Your task to perform on an android device: toggle location history Image 0: 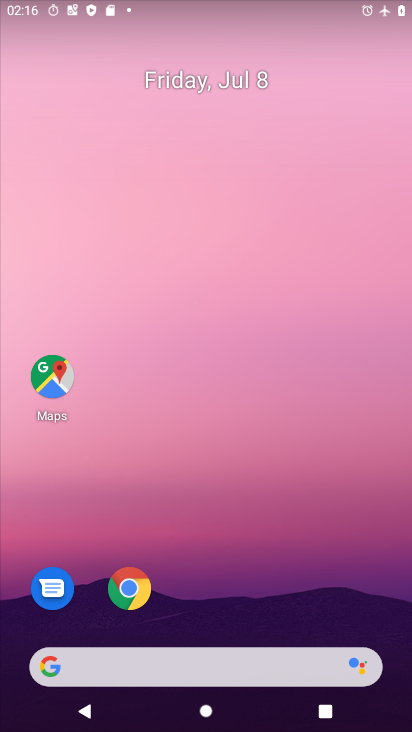
Step 0: drag from (258, 551) to (297, 108)
Your task to perform on an android device: toggle location history Image 1: 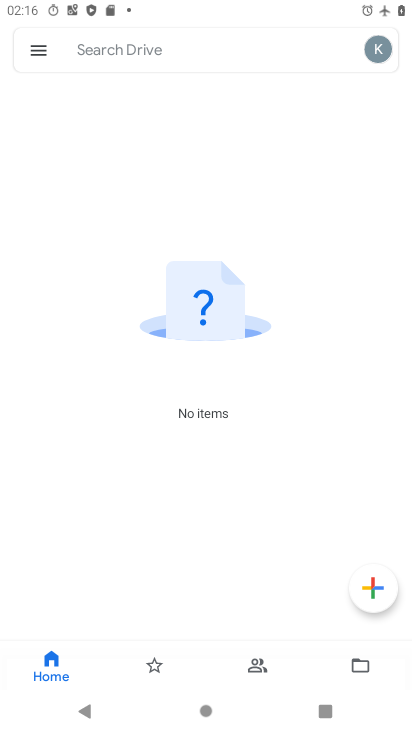
Step 1: press home button
Your task to perform on an android device: toggle location history Image 2: 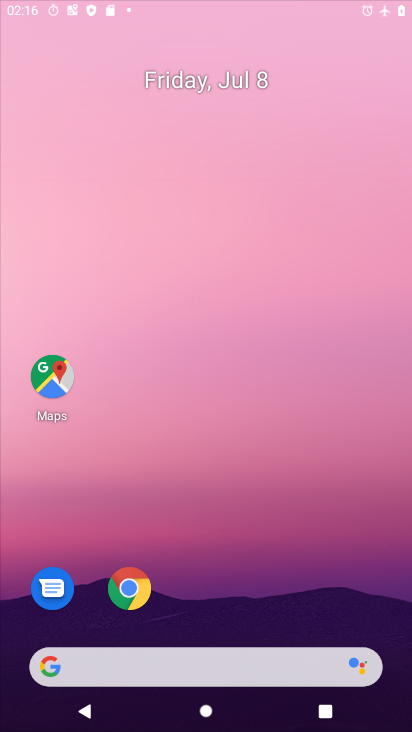
Step 2: drag from (219, 623) to (223, 292)
Your task to perform on an android device: toggle location history Image 3: 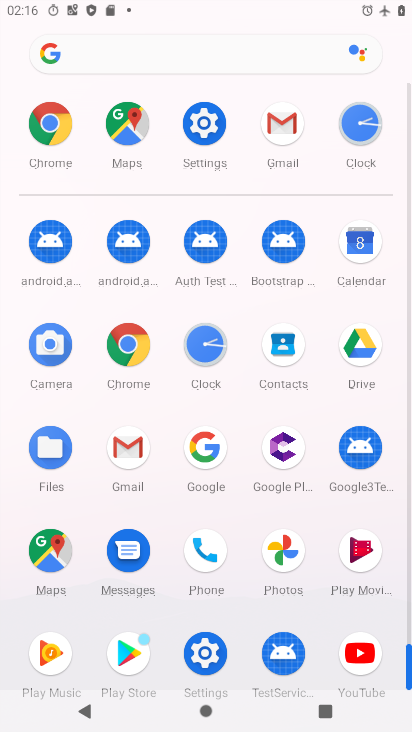
Step 3: click (206, 113)
Your task to perform on an android device: toggle location history Image 4: 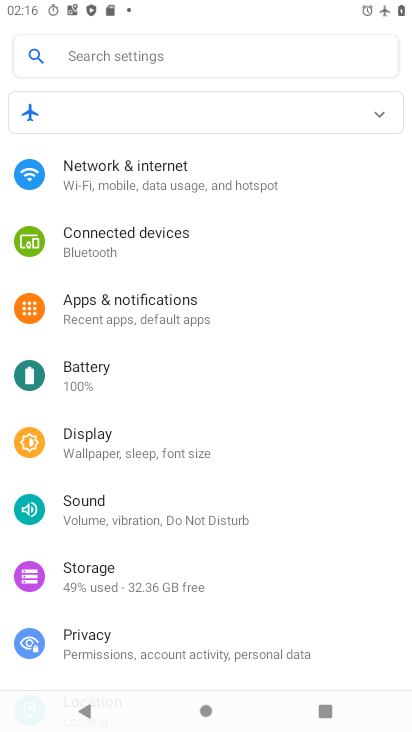
Step 4: drag from (209, 507) to (214, 164)
Your task to perform on an android device: toggle location history Image 5: 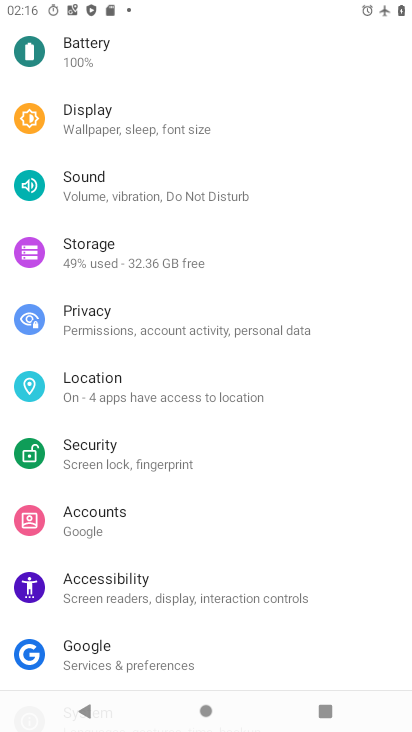
Step 5: drag from (227, 632) to (221, 0)
Your task to perform on an android device: toggle location history Image 6: 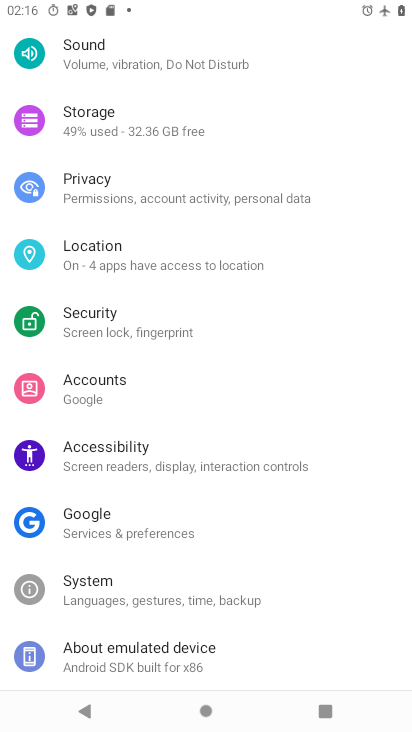
Step 6: click (106, 251)
Your task to perform on an android device: toggle location history Image 7: 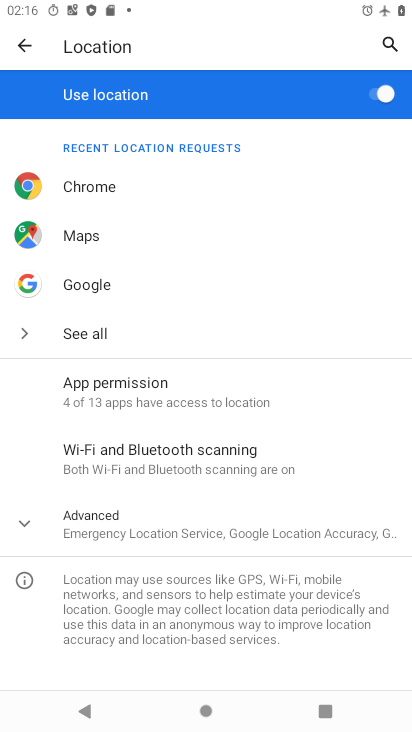
Step 7: drag from (259, 686) to (308, 419)
Your task to perform on an android device: toggle location history Image 8: 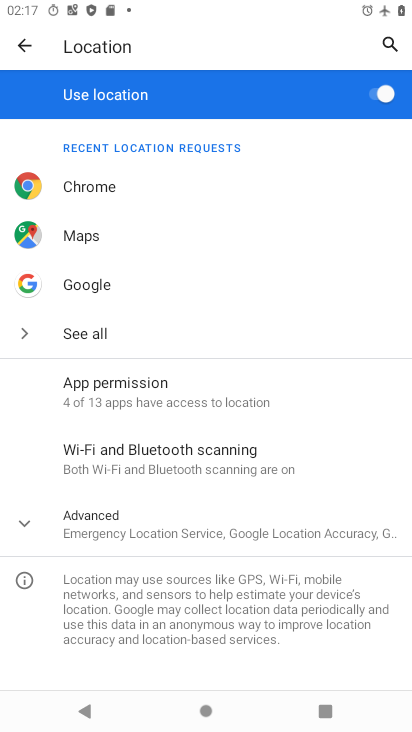
Step 8: click (140, 532)
Your task to perform on an android device: toggle location history Image 9: 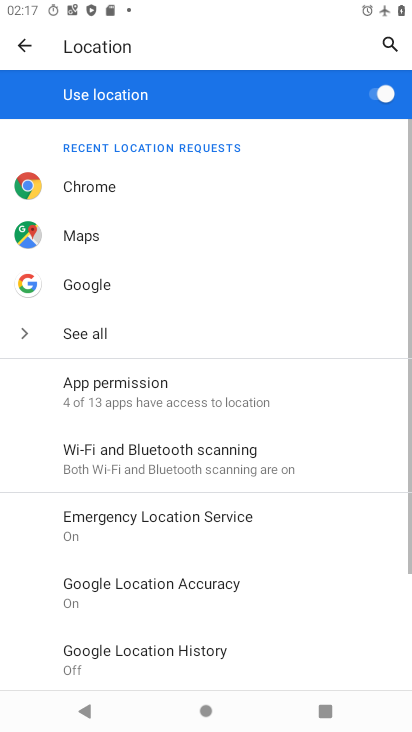
Step 9: drag from (151, 527) to (226, 150)
Your task to perform on an android device: toggle location history Image 10: 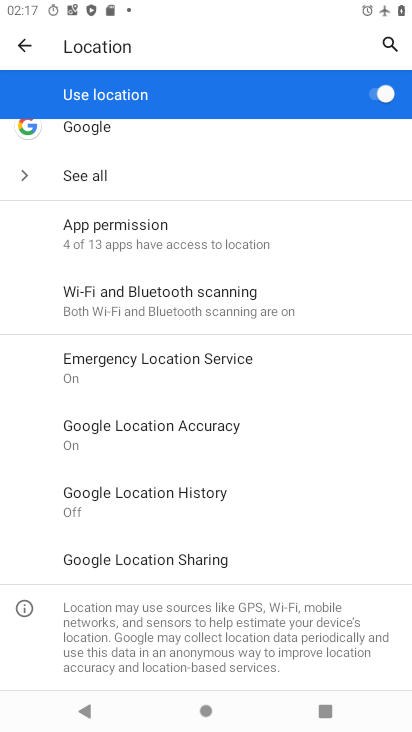
Step 10: click (203, 502)
Your task to perform on an android device: toggle location history Image 11: 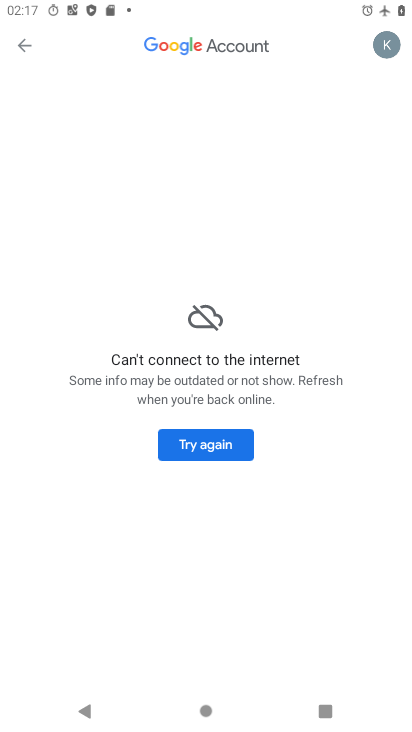
Step 11: click (185, 443)
Your task to perform on an android device: toggle location history Image 12: 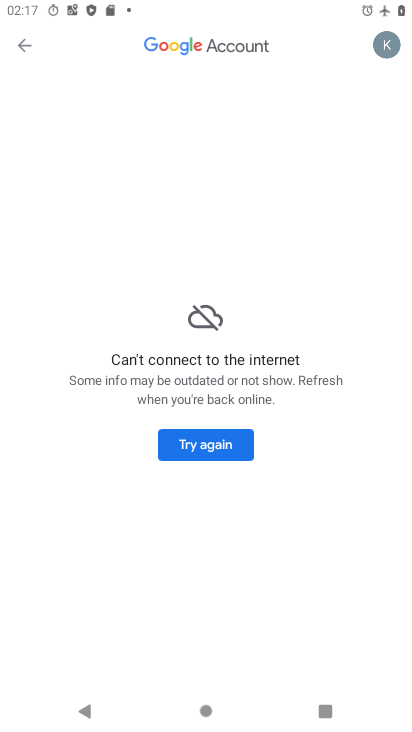
Step 12: task complete